Your task to perform on an android device: Search for the best rated mechanical keyboard on Amazon. Image 0: 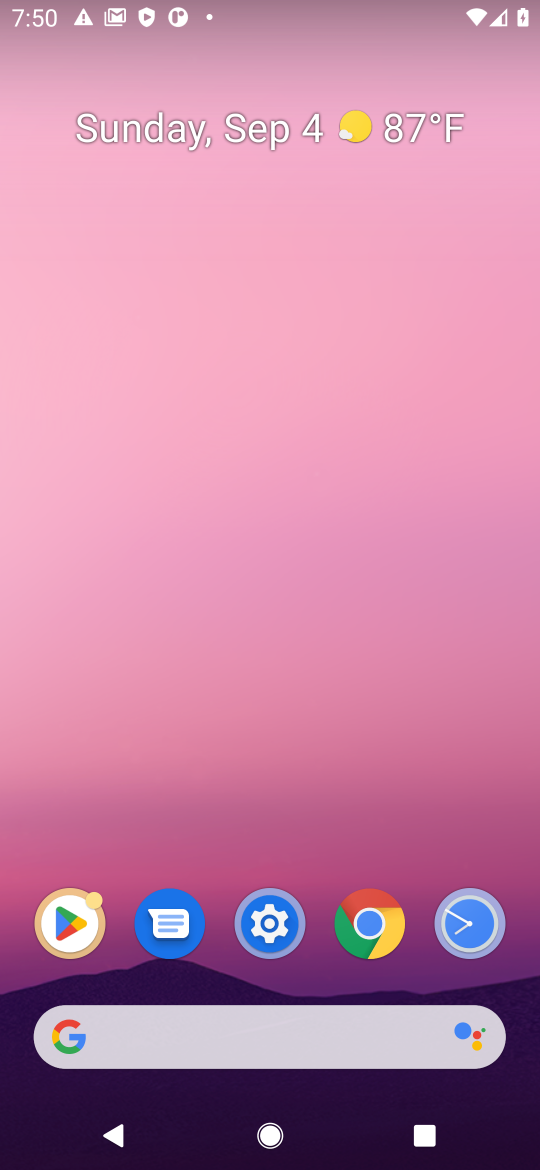
Step 0: press home button
Your task to perform on an android device: Search for the best rated mechanical keyboard on Amazon. Image 1: 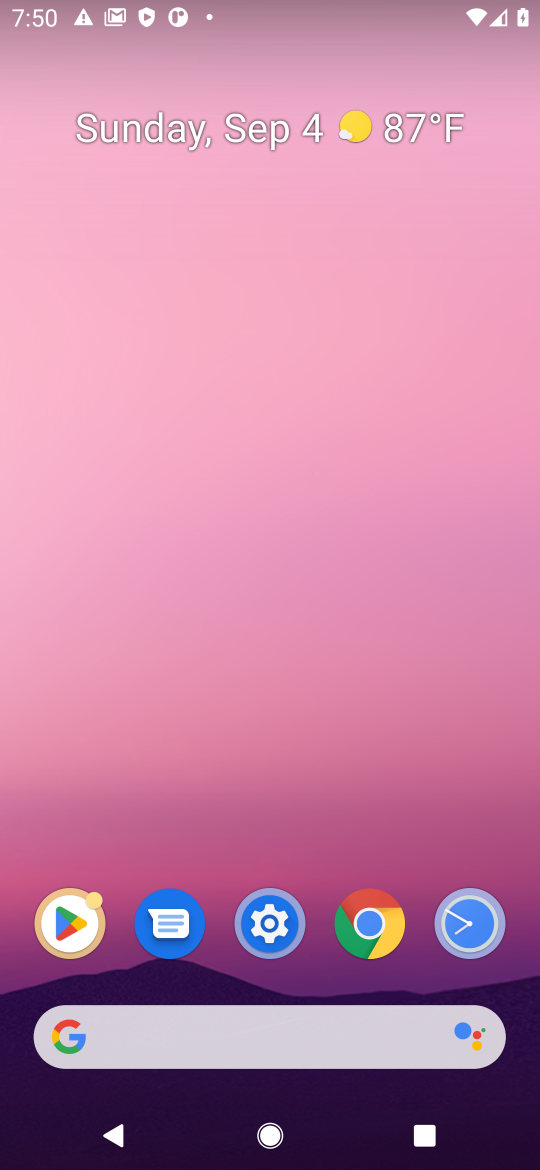
Step 1: click (390, 1057)
Your task to perform on an android device: Search for the best rated mechanical keyboard on Amazon. Image 2: 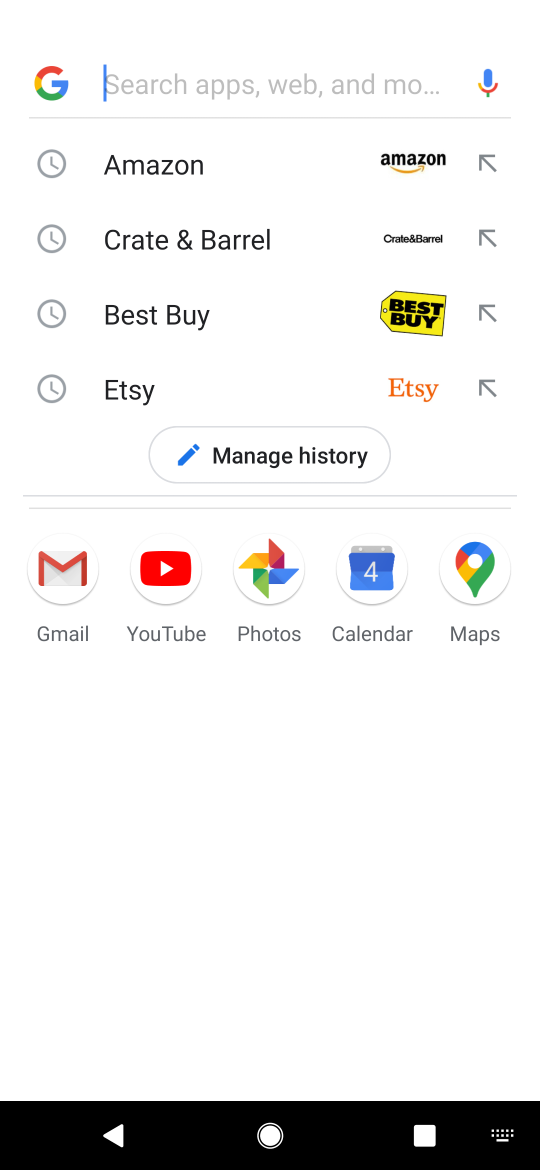
Step 2: type "amazon"
Your task to perform on an android device: Search for the best rated mechanical keyboard on Amazon. Image 3: 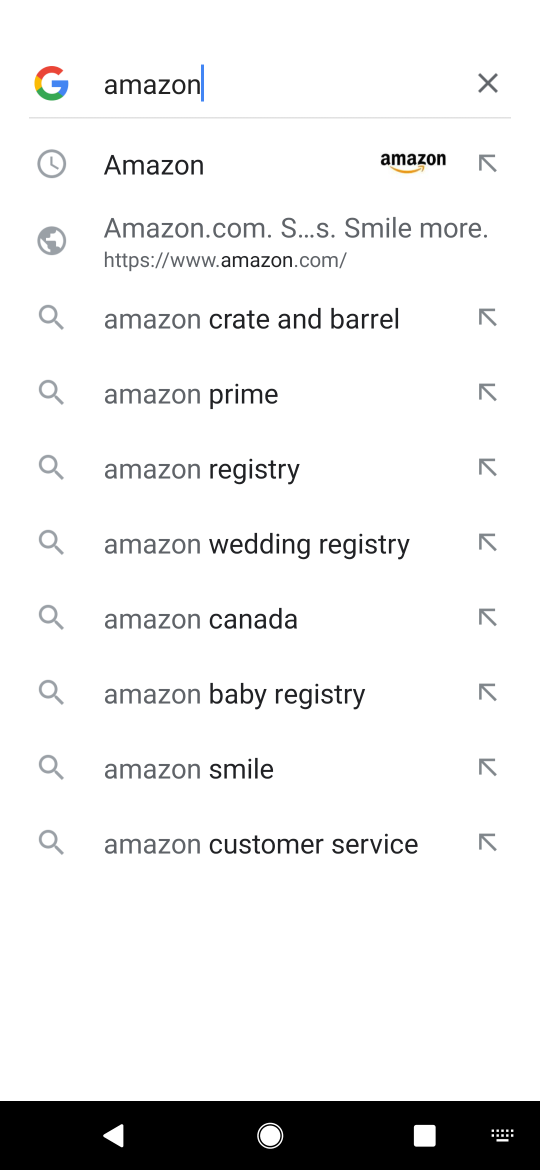
Step 3: press enter
Your task to perform on an android device: Search for the best rated mechanical keyboard on Amazon. Image 4: 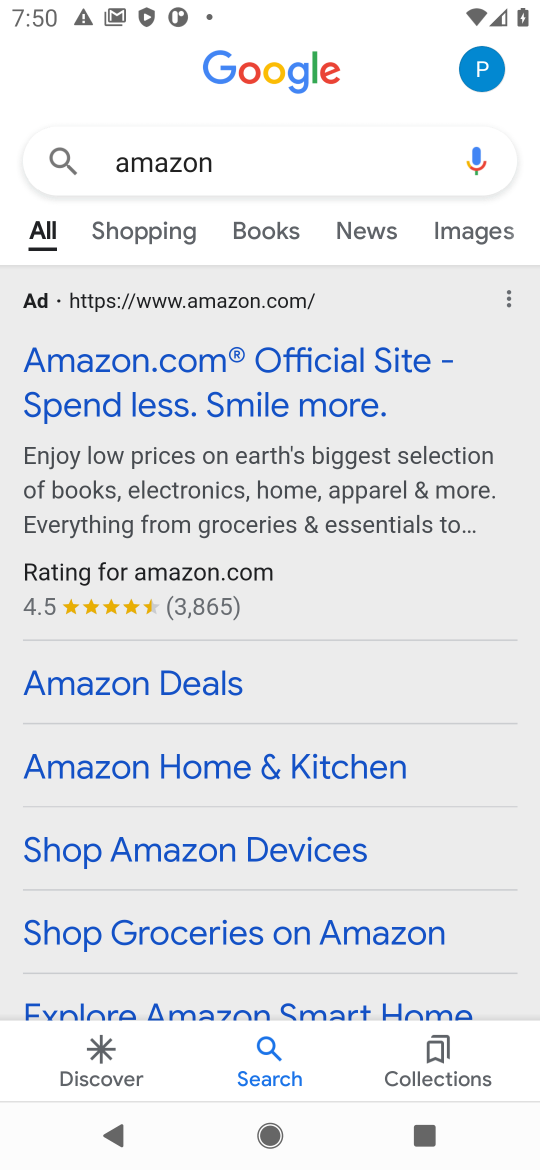
Step 4: click (264, 377)
Your task to perform on an android device: Search for the best rated mechanical keyboard on Amazon. Image 5: 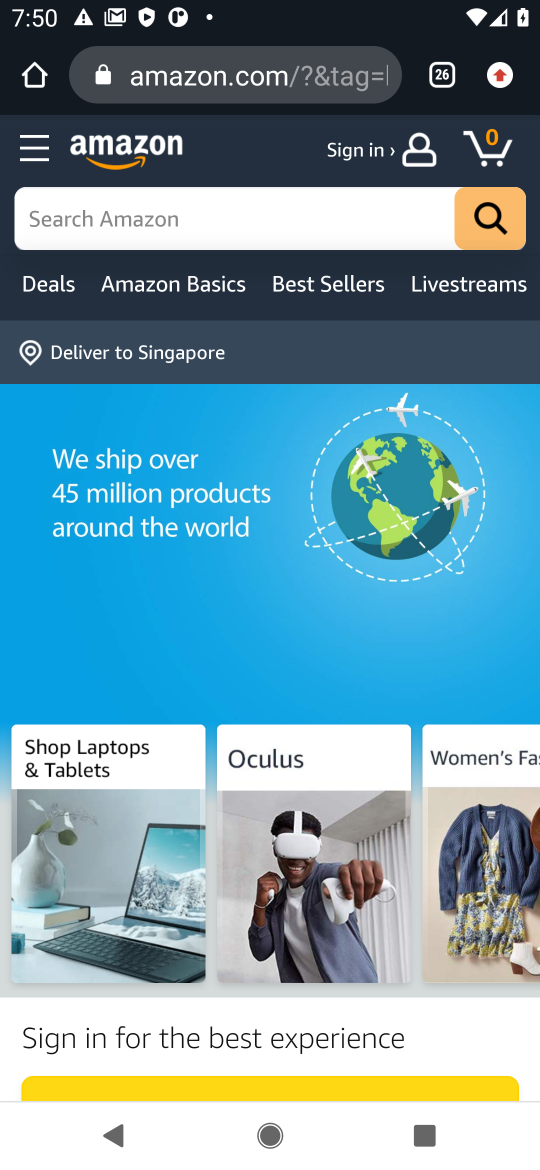
Step 5: click (293, 208)
Your task to perform on an android device: Search for the best rated mechanical keyboard on Amazon. Image 6: 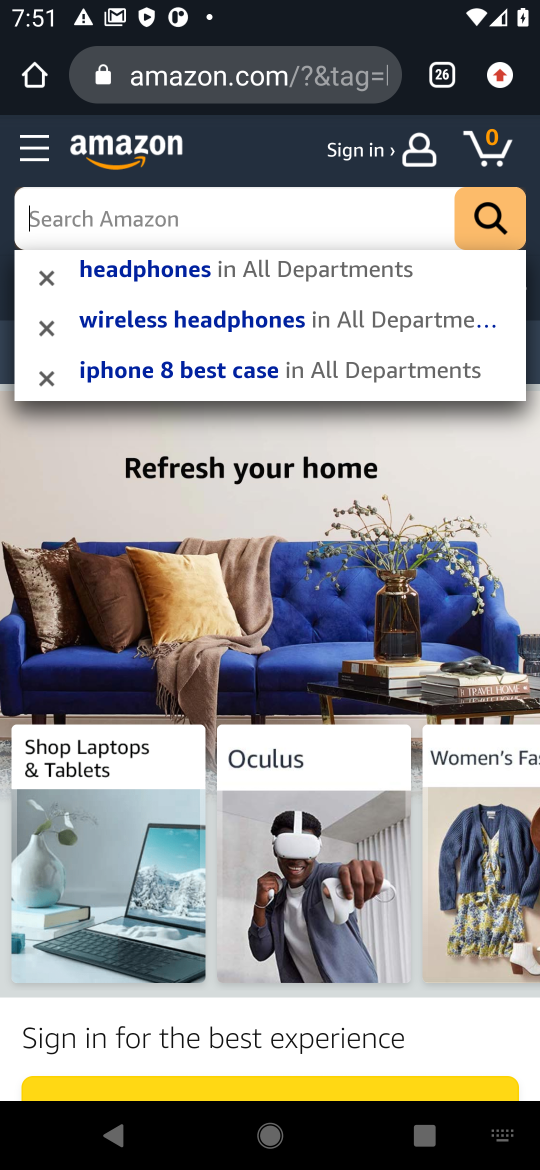
Step 6: type "mechanical keyboard"
Your task to perform on an android device: Search for the best rated mechanical keyboard on Amazon. Image 7: 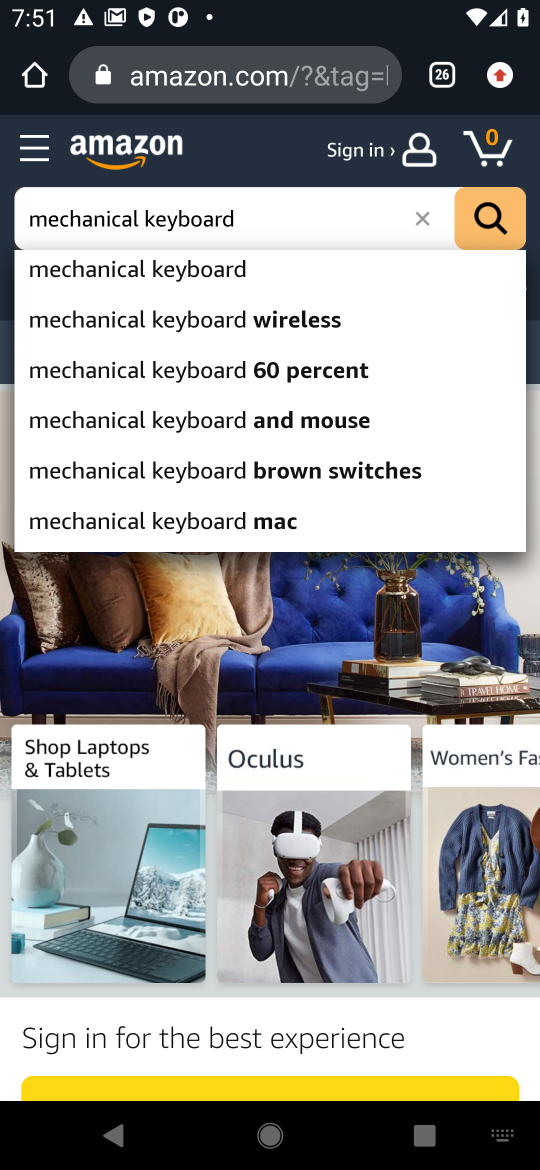
Step 7: click (243, 274)
Your task to perform on an android device: Search for the best rated mechanical keyboard on Amazon. Image 8: 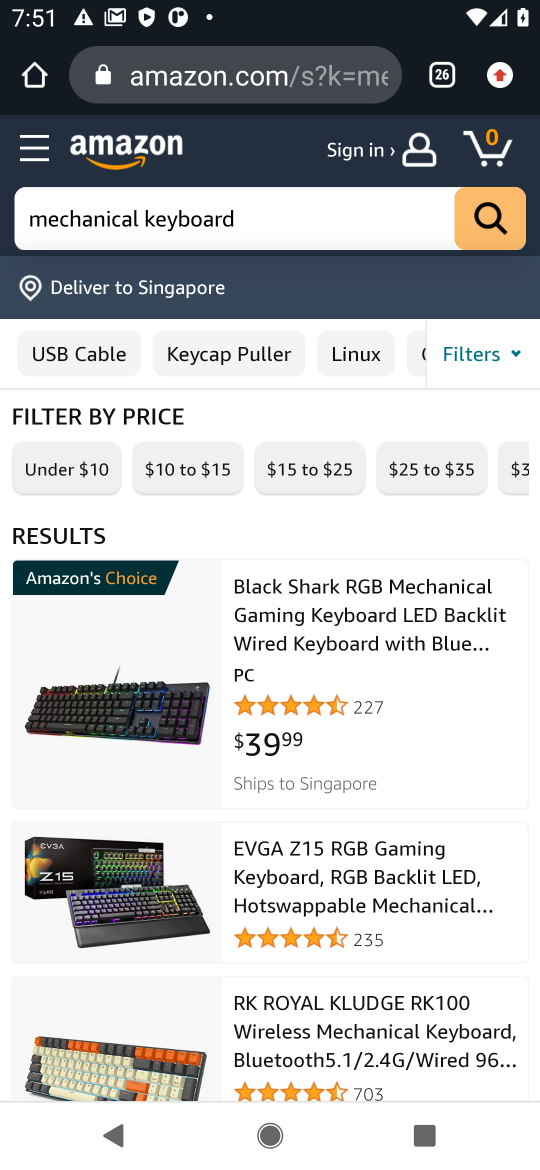
Step 8: task complete